Your task to perform on an android device: Check the weather Image 0: 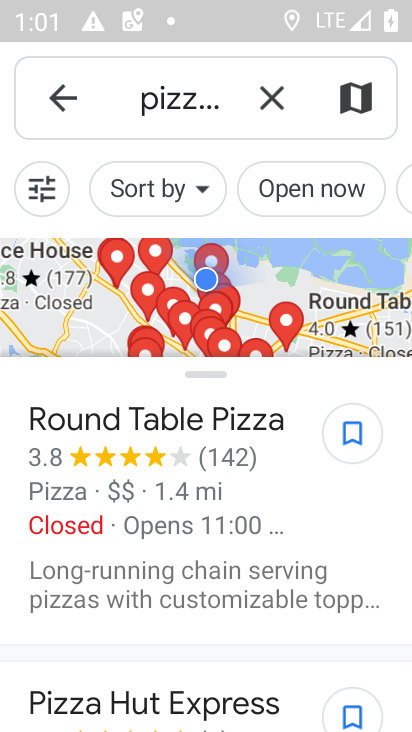
Step 0: click (268, 106)
Your task to perform on an android device: Check the weather Image 1: 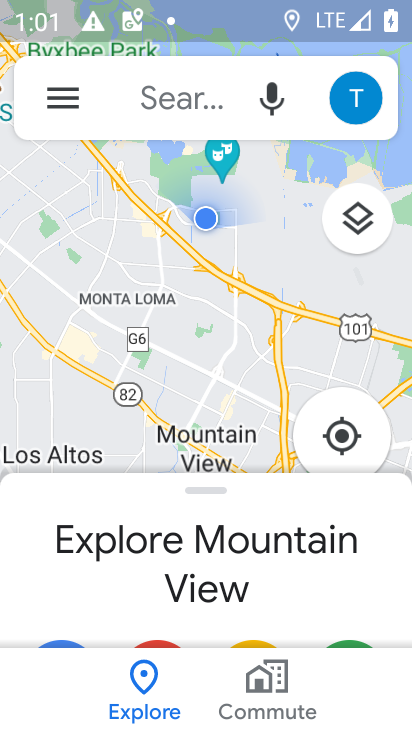
Step 1: press home button
Your task to perform on an android device: Check the weather Image 2: 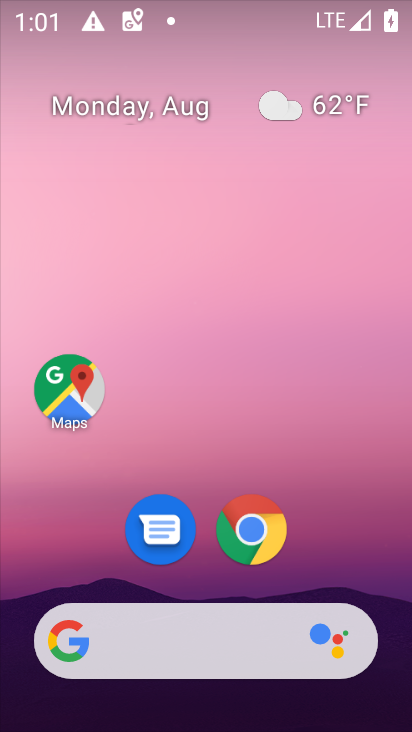
Step 2: drag from (206, 610) to (205, 243)
Your task to perform on an android device: Check the weather Image 3: 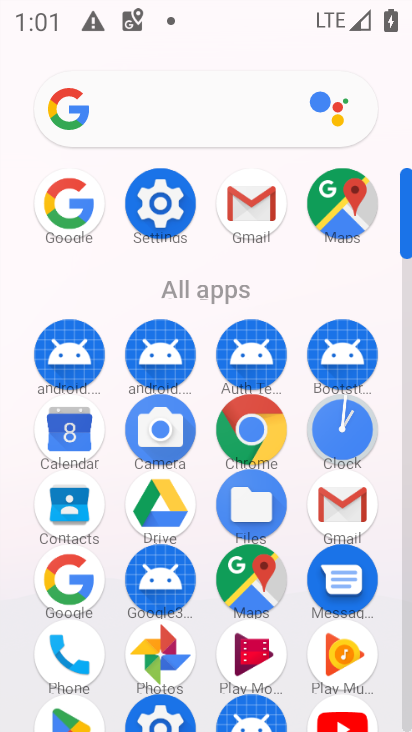
Step 3: click (79, 580)
Your task to perform on an android device: Check the weather Image 4: 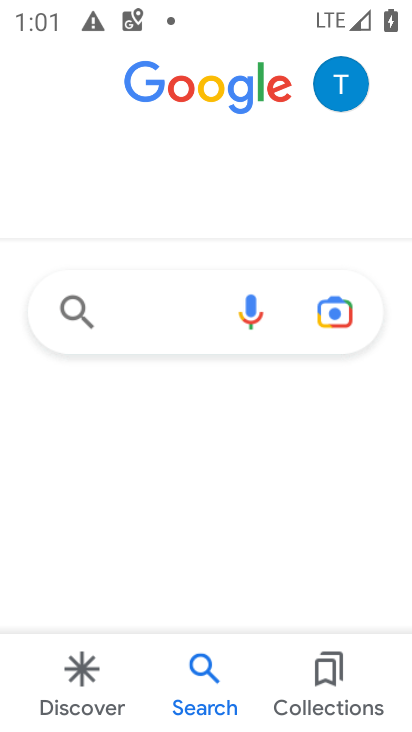
Step 4: click (152, 310)
Your task to perform on an android device: Check the weather Image 5: 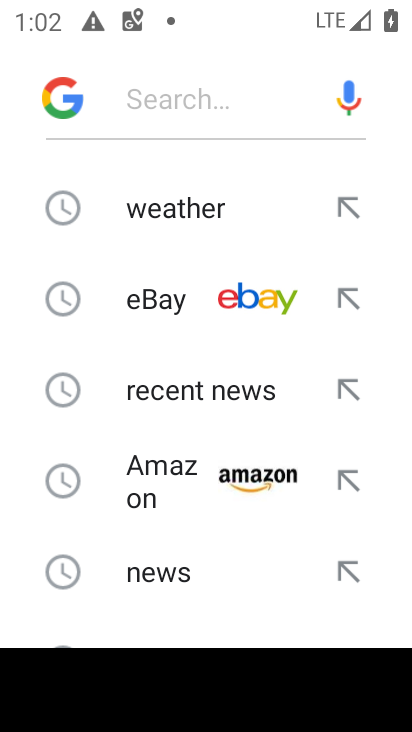
Step 5: click (156, 210)
Your task to perform on an android device: Check the weather Image 6: 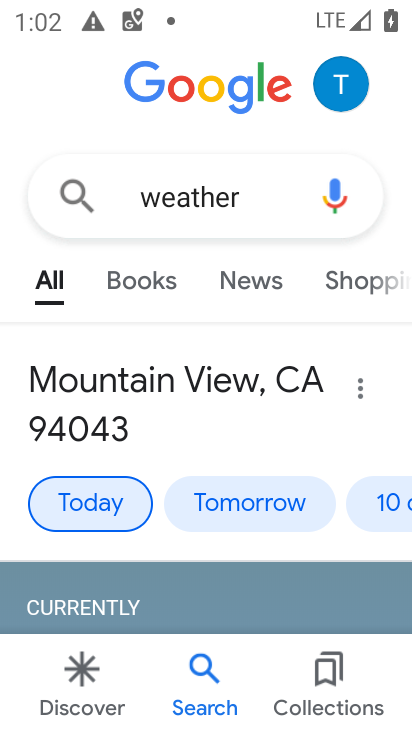
Step 6: task complete